Your task to perform on an android device: change the upload size in google photos Image 0: 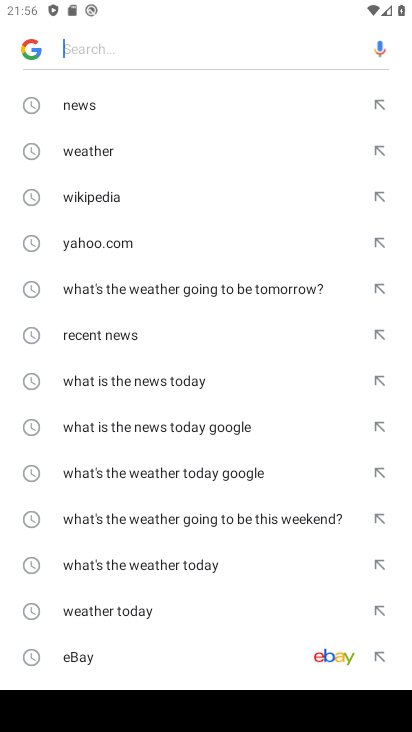
Step 0: press back button
Your task to perform on an android device: change the upload size in google photos Image 1: 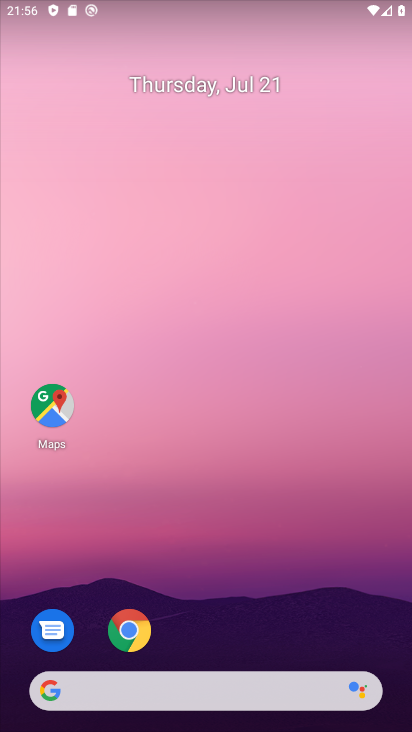
Step 1: drag from (203, 651) to (186, 70)
Your task to perform on an android device: change the upload size in google photos Image 2: 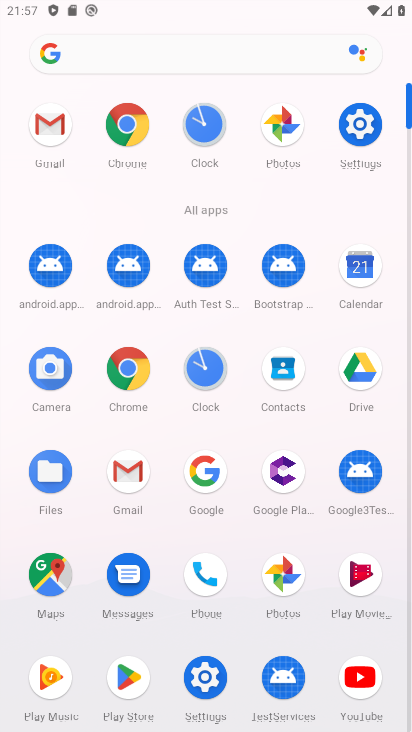
Step 2: click (274, 566)
Your task to perform on an android device: change the upload size in google photos Image 3: 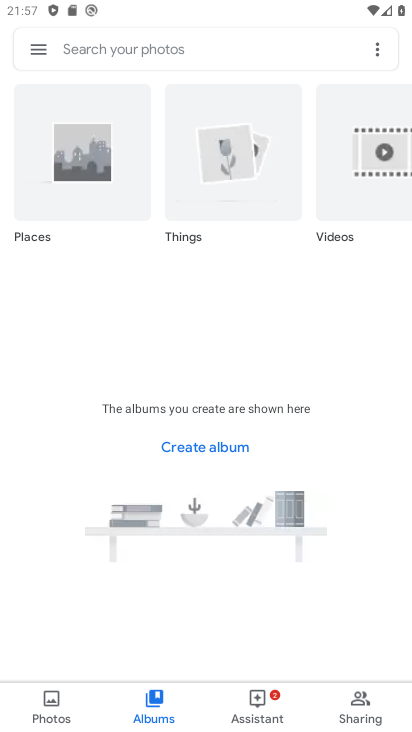
Step 3: click (35, 50)
Your task to perform on an android device: change the upload size in google photos Image 4: 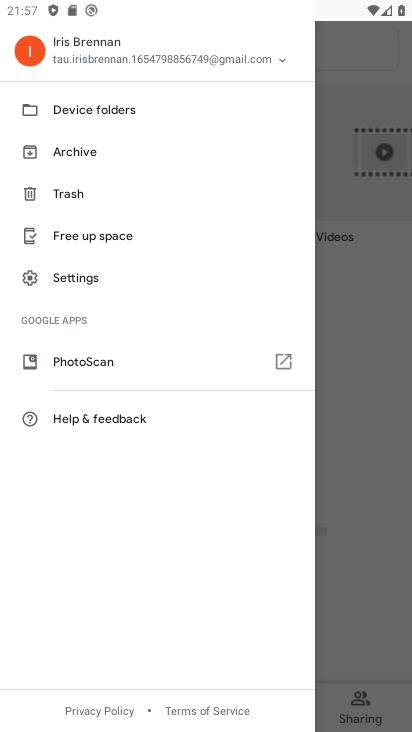
Step 4: click (76, 276)
Your task to perform on an android device: change the upload size in google photos Image 5: 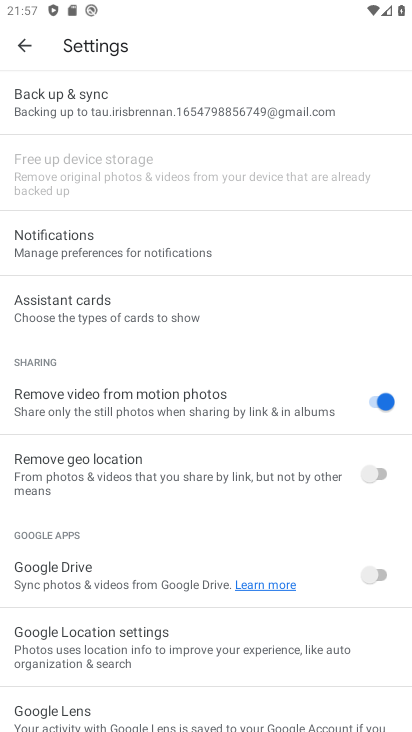
Step 5: click (28, 35)
Your task to perform on an android device: change the upload size in google photos Image 6: 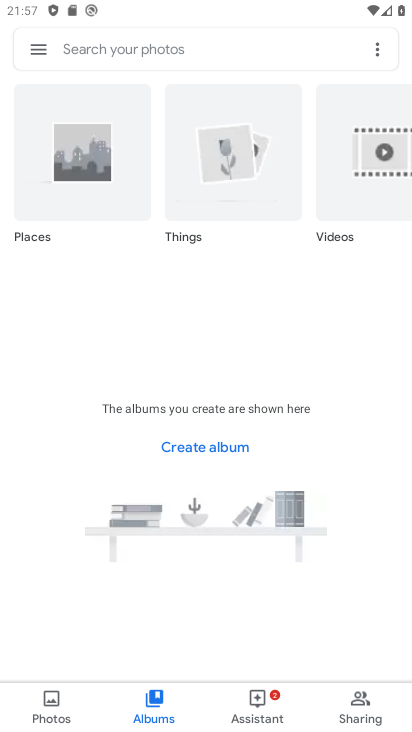
Step 6: drag from (77, 102) to (68, 417)
Your task to perform on an android device: change the upload size in google photos Image 7: 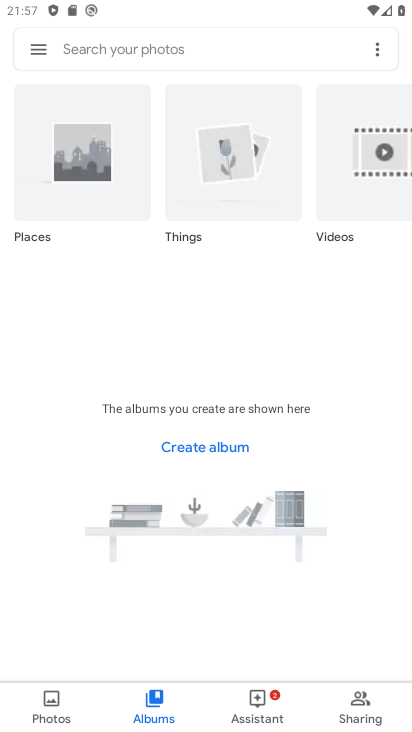
Step 7: click (33, 45)
Your task to perform on an android device: change the upload size in google photos Image 8: 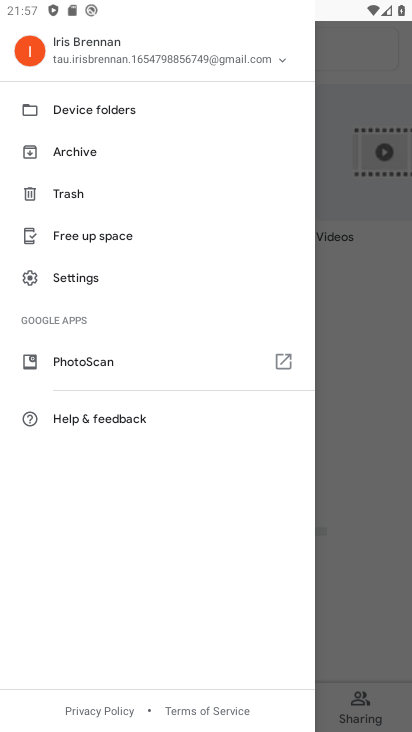
Step 8: click (72, 286)
Your task to perform on an android device: change the upload size in google photos Image 9: 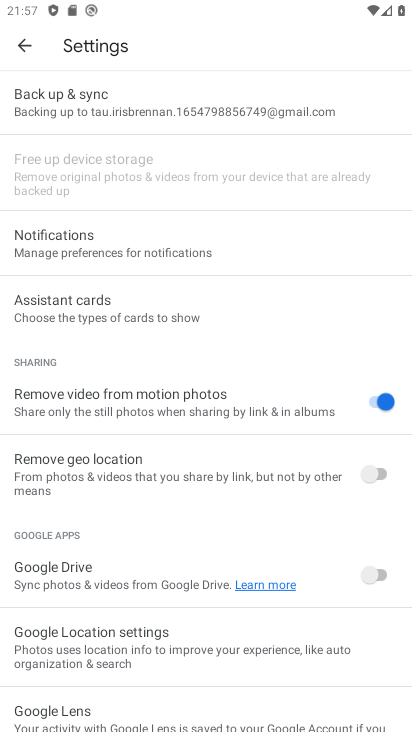
Step 9: click (72, 102)
Your task to perform on an android device: change the upload size in google photos Image 10: 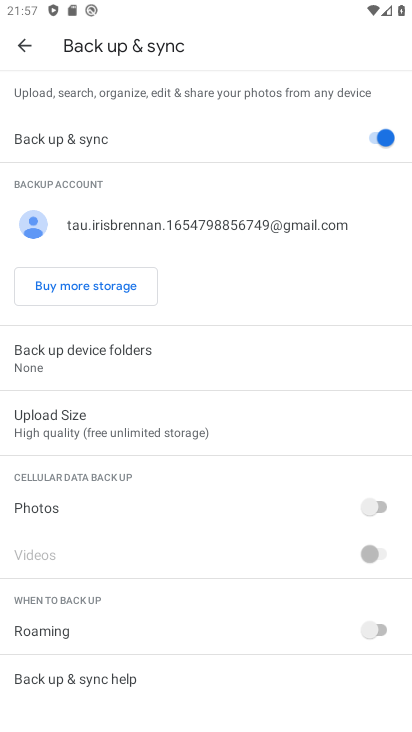
Step 10: click (92, 435)
Your task to perform on an android device: change the upload size in google photos Image 11: 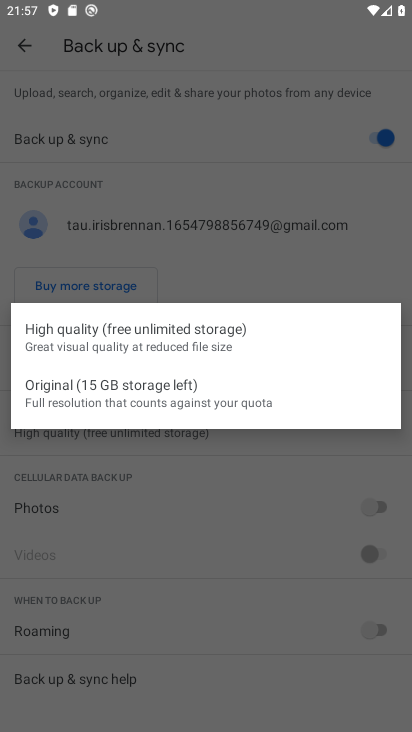
Step 11: click (99, 396)
Your task to perform on an android device: change the upload size in google photos Image 12: 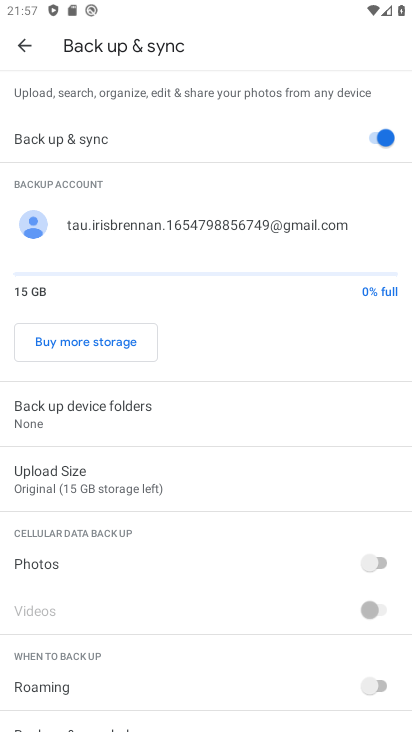
Step 12: task complete